Your task to perform on an android device: Check the weather Image 0: 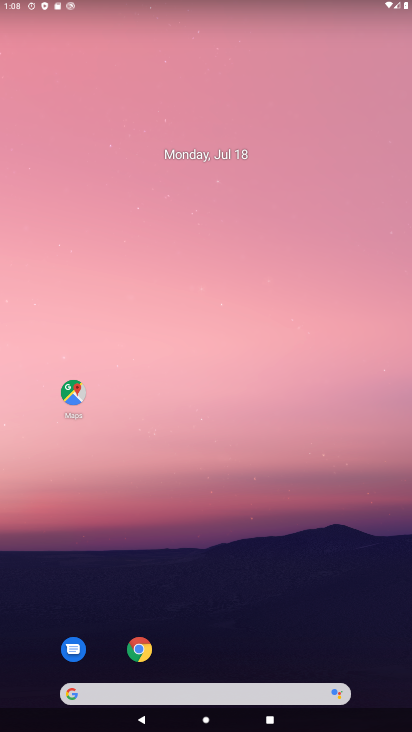
Step 0: click (206, 694)
Your task to perform on an android device: Check the weather Image 1: 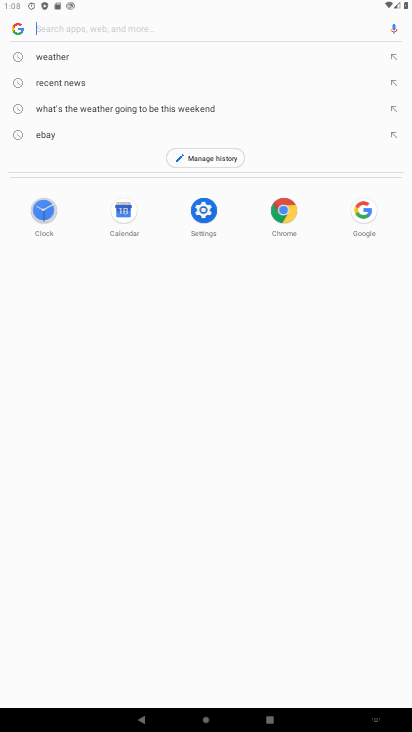
Step 1: click (44, 48)
Your task to perform on an android device: Check the weather Image 2: 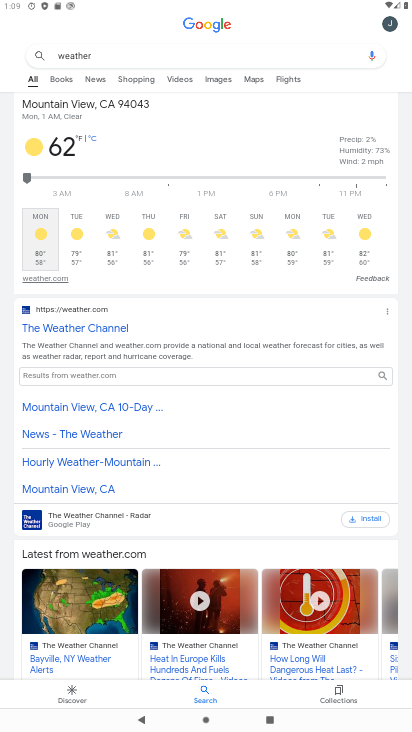
Step 2: task complete